Your task to perform on an android device: Open Amazon Image 0: 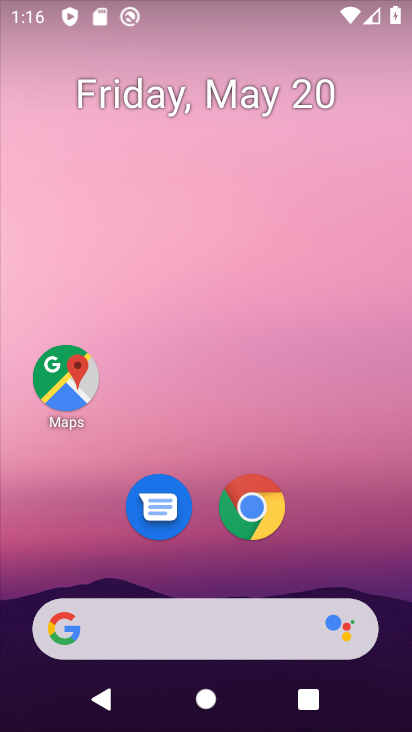
Step 0: click (257, 511)
Your task to perform on an android device: Open Amazon Image 1: 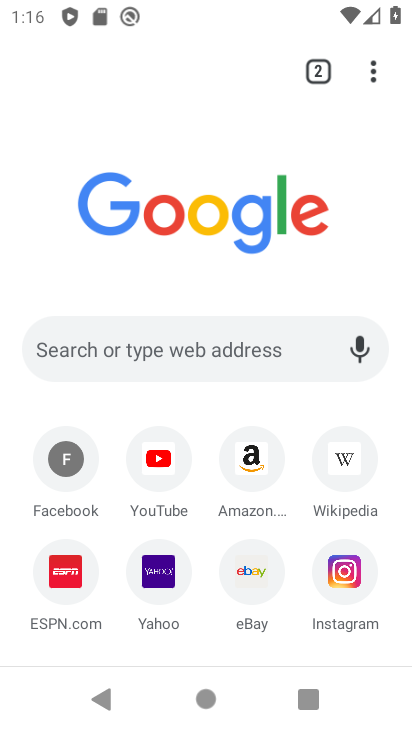
Step 1: click (255, 462)
Your task to perform on an android device: Open Amazon Image 2: 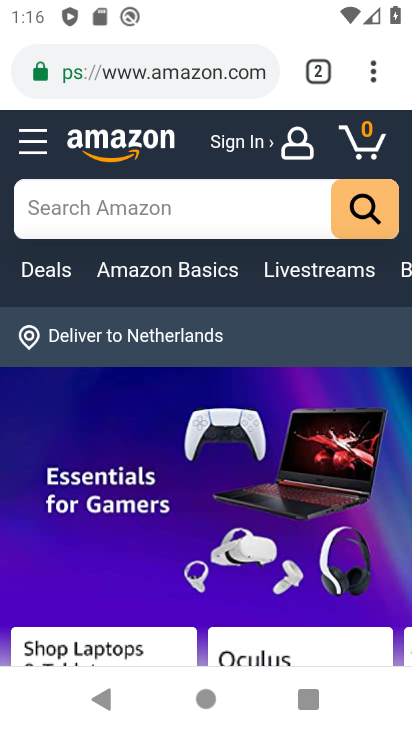
Step 2: task complete